Your task to perform on an android device: Open location settings Image 0: 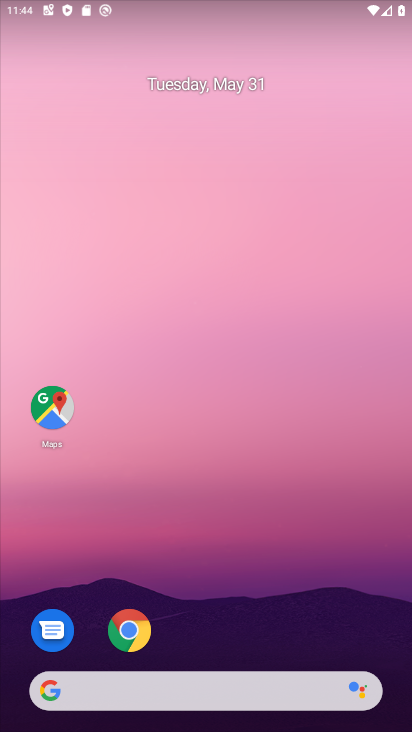
Step 0: drag from (326, 557) to (273, 189)
Your task to perform on an android device: Open location settings Image 1: 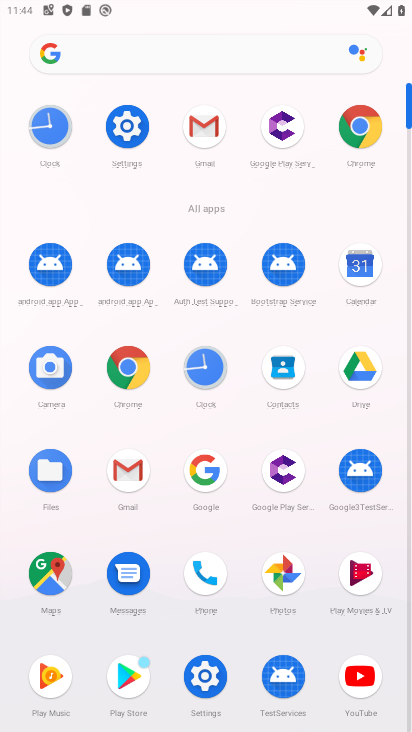
Step 1: click (128, 125)
Your task to perform on an android device: Open location settings Image 2: 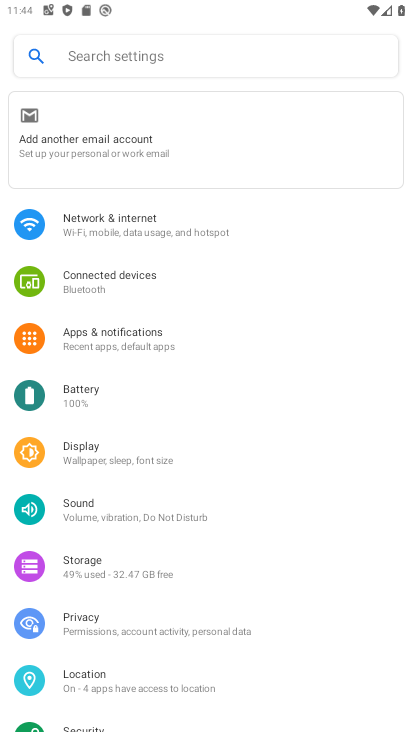
Step 2: click (117, 674)
Your task to perform on an android device: Open location settings Image 3: 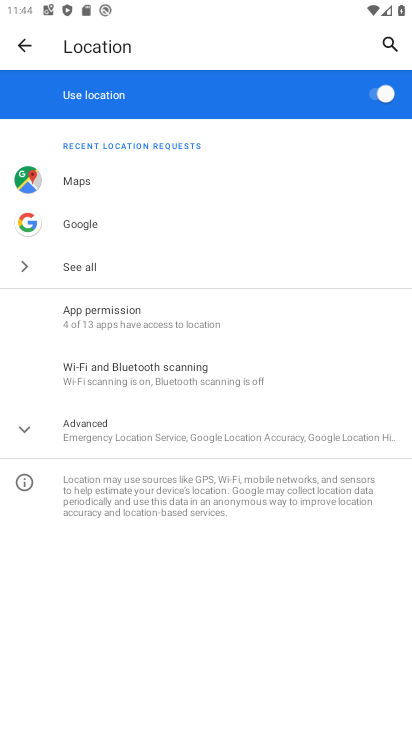
Step 3: task complete